Your task to perform on an android device: turn off location Image 0: 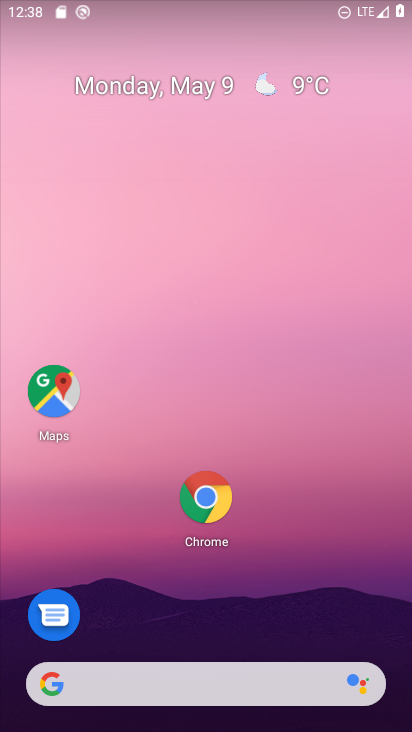
Step 0: click (247, 67)
Your task to perform on an android device: turn off location Image 1: 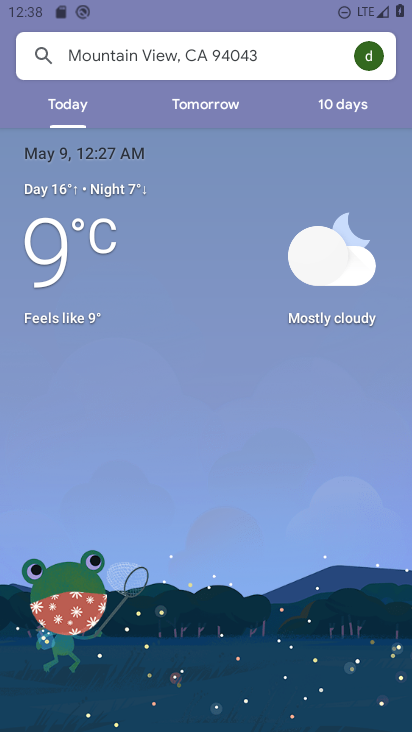
Step 1: press home button
Your task to perform on an android device: turn off location Image 2: 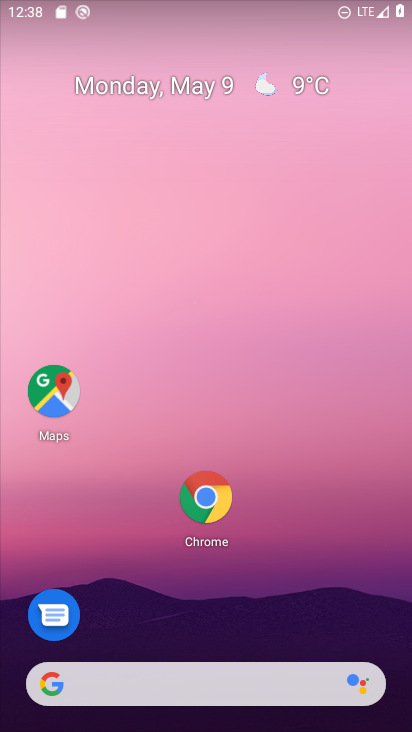
Step 2: drag from (312, 570) to (286, 115)
Your task to perform on an android device: turn off location Image 3: 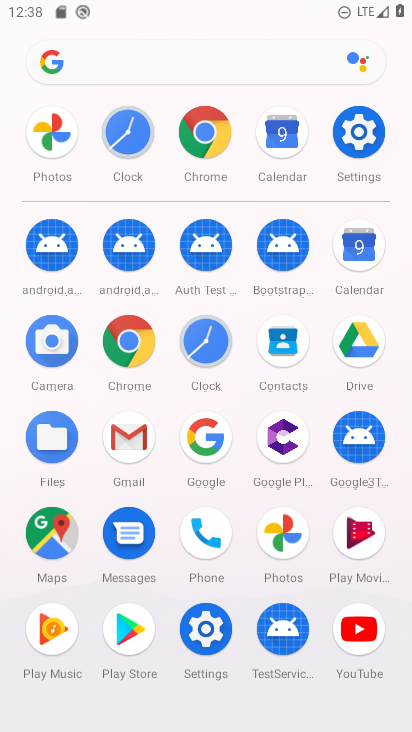
Step 3: click (346, 154)
Your task to perform on an android device: turn off location Image 4: 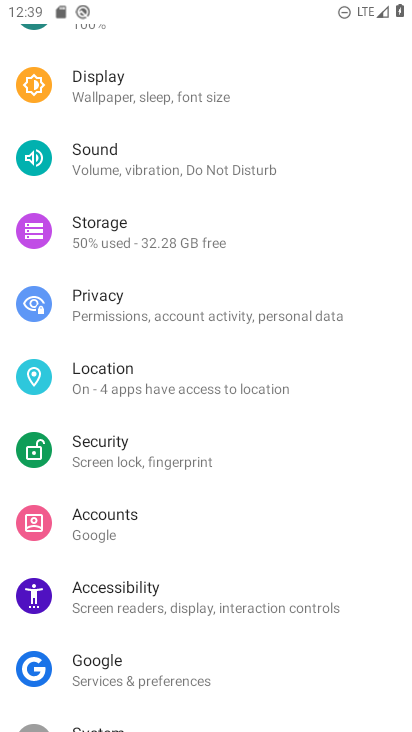
Step 4: click (152, 368)
Your task to perform on an android device: turn off location Image 5: 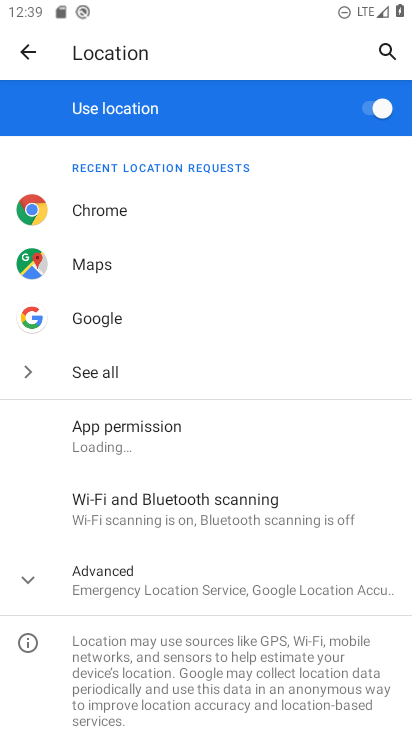
Step 5: click (369, 102)
Your task to perform on an android device: turn off location Image 6: 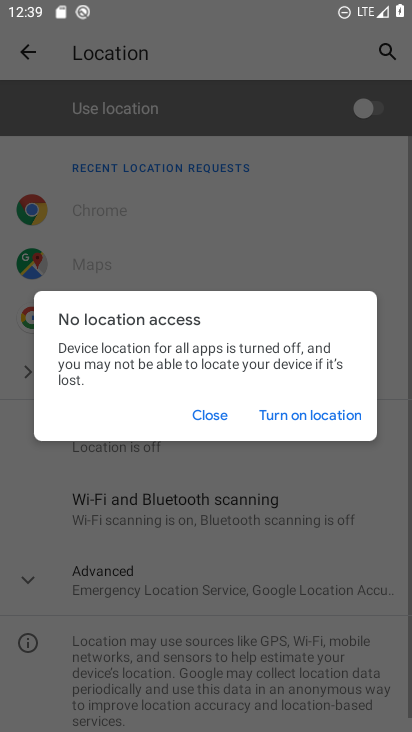
Step 6: task complete